Your task to perform on an android device: Go to wifi settings Image 0: 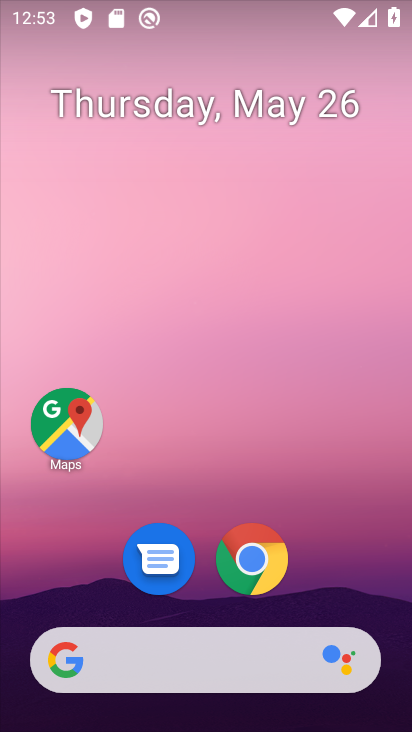
Step 0: drag from (207, 648) to (307, 160)
Your task to perform on an android device: Go to wifi settings Image 1: 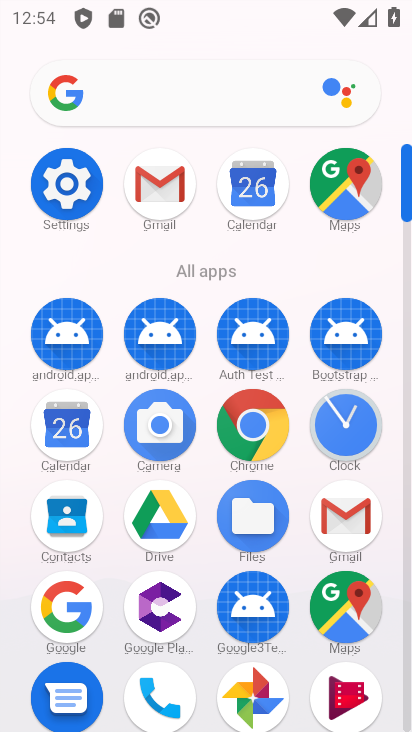
Step 1: click (55, 174)
Your task to perform on an android device: Go to wifi settings Image 2: 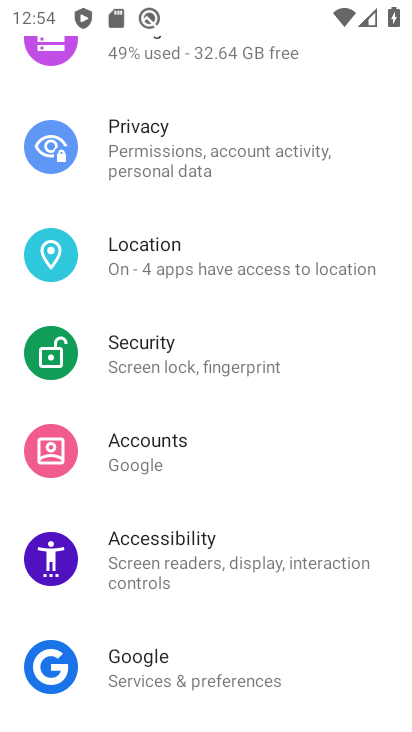
Step 2: drag from (243, 200) to (246, 698)
Your task to perform on an android device: Go to wifi settings Image 3: 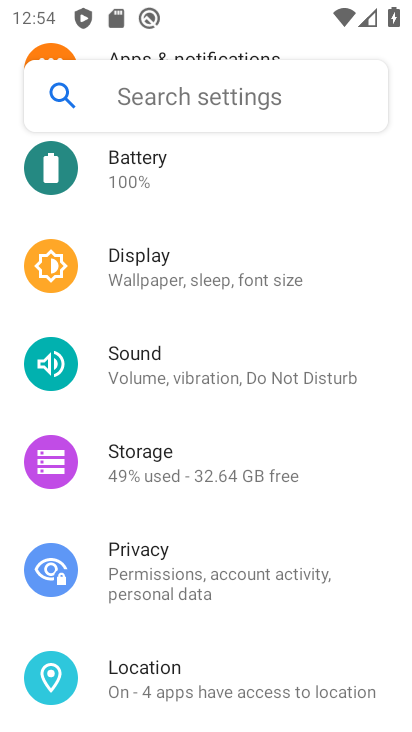
Step 3: drag from (236, 189) to (237, 641)
Your task to perform on an android device: Go to wifi settings Image 4: 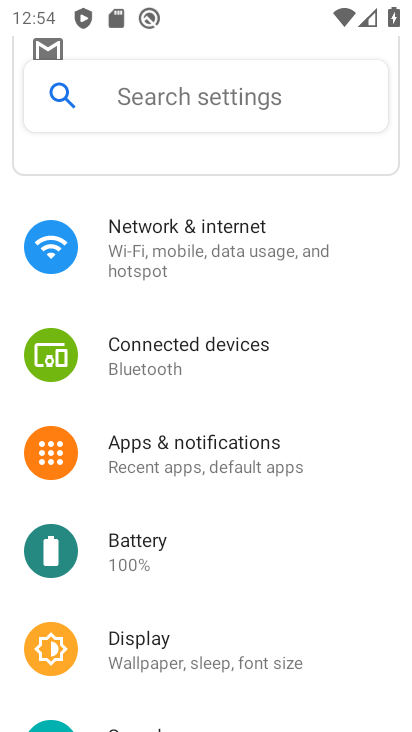
Step 4: click (207, 245)
Your task to perform on an android device: Go to wifi settings Image 5: 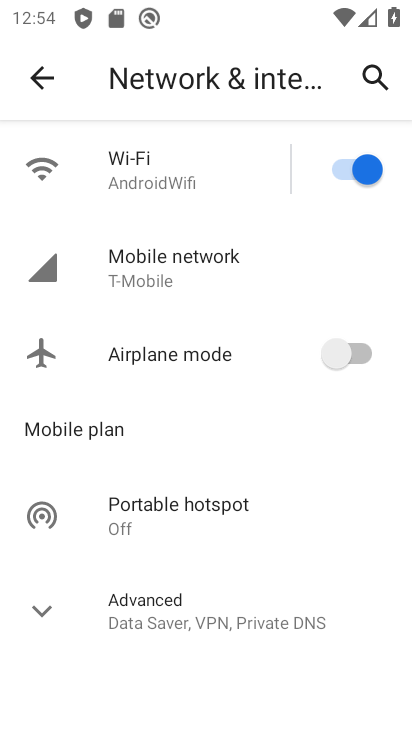
Step 5: click (167, 185)
Your task to perform on an android device: Go to wifi settings Image 6: 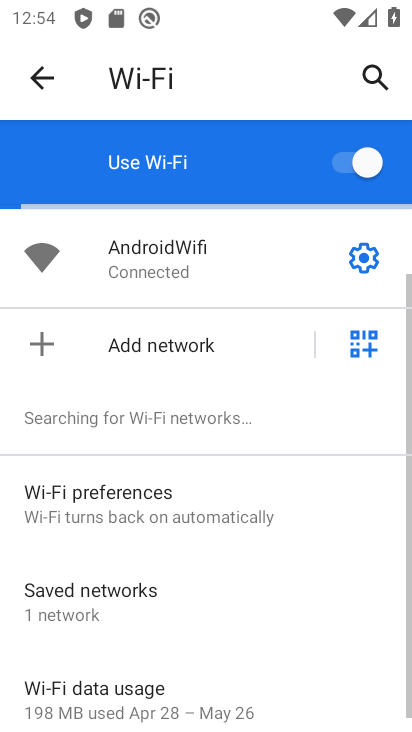
Step 6: task complete